Your task to perform on an android device: Go to privacy settings Image 0: 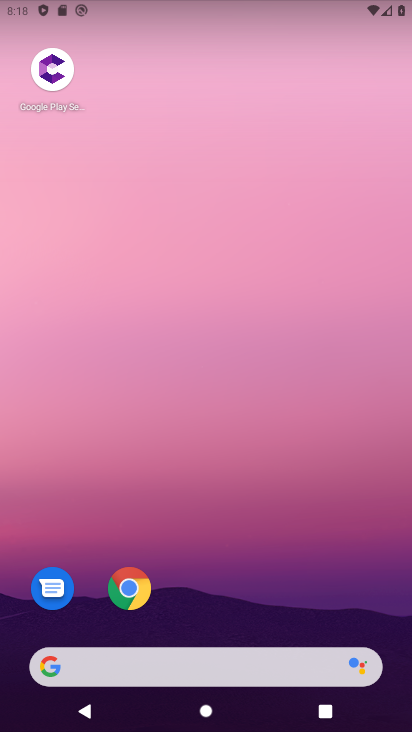
Step 0: drag from (273, 625) to (213, 155)
Your task to perform on an android device: Go to privacy settings Image 1: 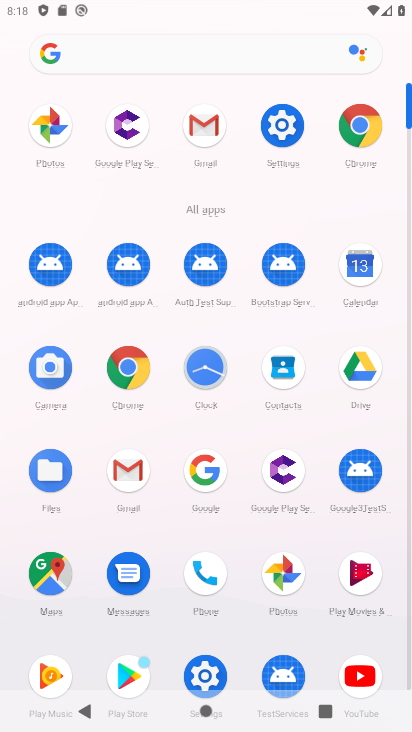
Step 1: click (279, 126)
Your task to perform on an android device: Go to privacy settings Image 2: 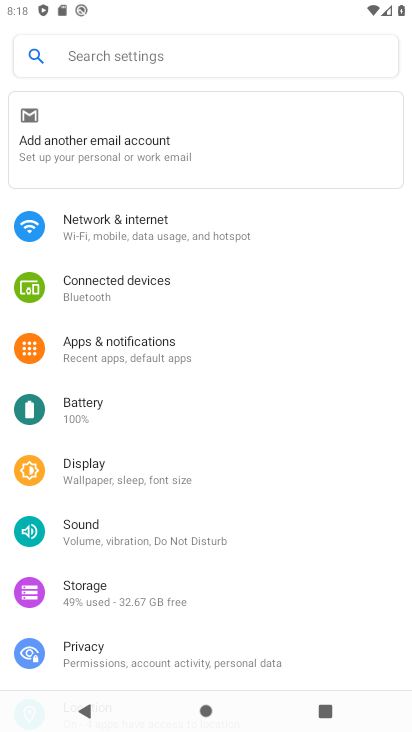
Step 2: click (165, 670)
Your task to perform on an android device: Go to privacy settings Image 3: 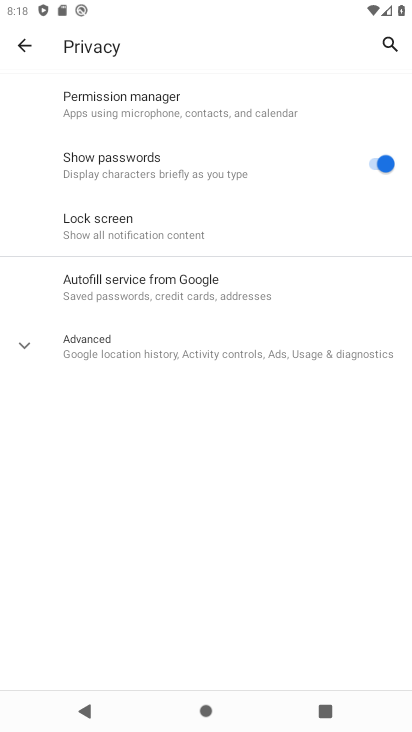
Step 3: task complete